Your task to perform on an android device: toggle wifi Image 0: 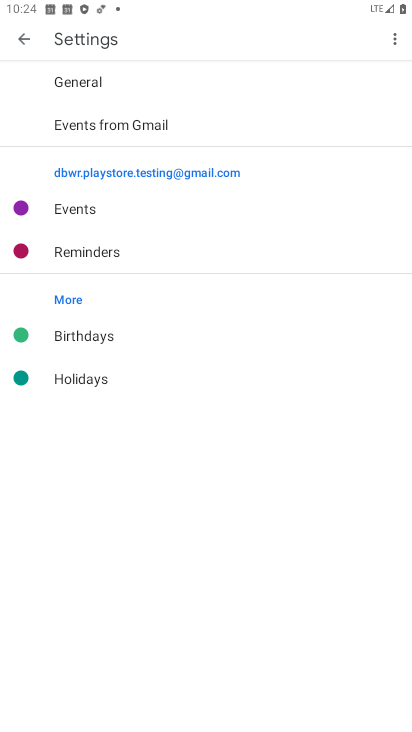
Step 0: drag from (309, 617) to (242, 142)
Your task to perform on an android device: toggle wifi Image 1: 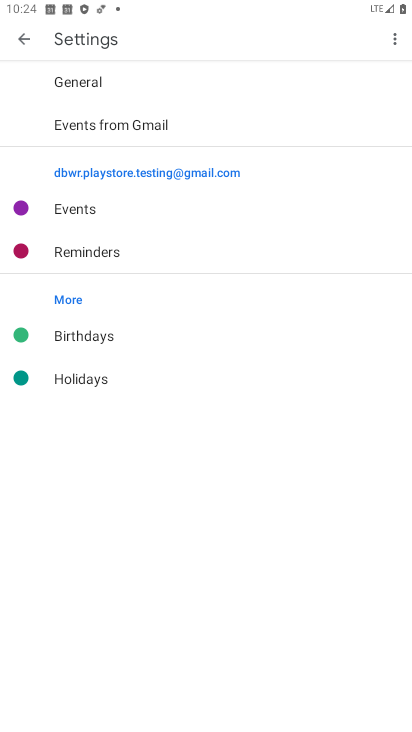
Step 1: drag from (211, 676) to (288, 266)
Your task to perform on an android device: toggle wifi Image 2: 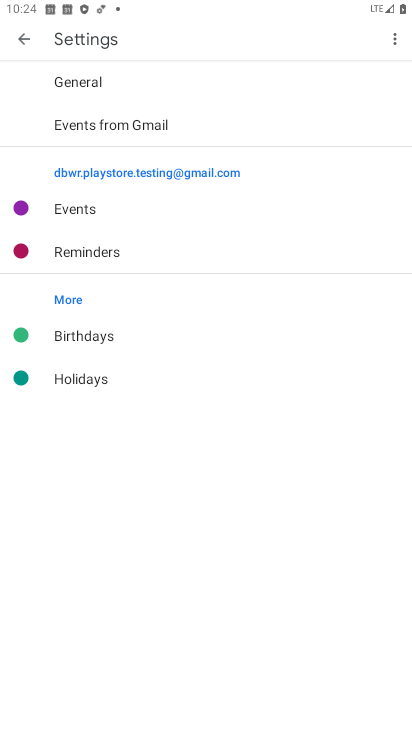
Step 2: drag from (217, 542) to (232, 420)
Your task to perform on an android device: toggle wifi Image 3: 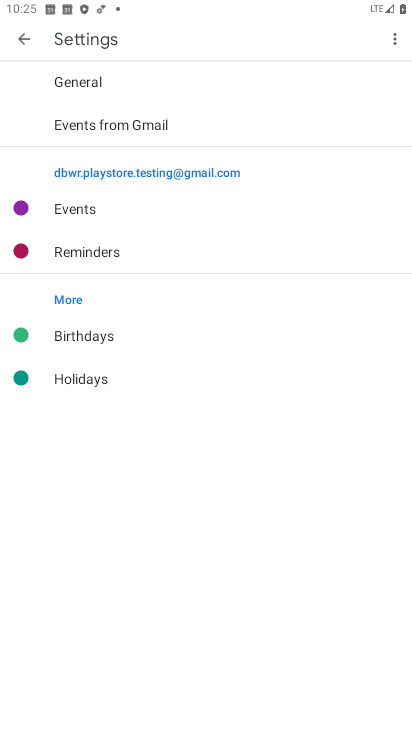
Step 3: drag from (285, 517) to (337, 277)
Your task to perform on an android device: toggle wifi Image 4: 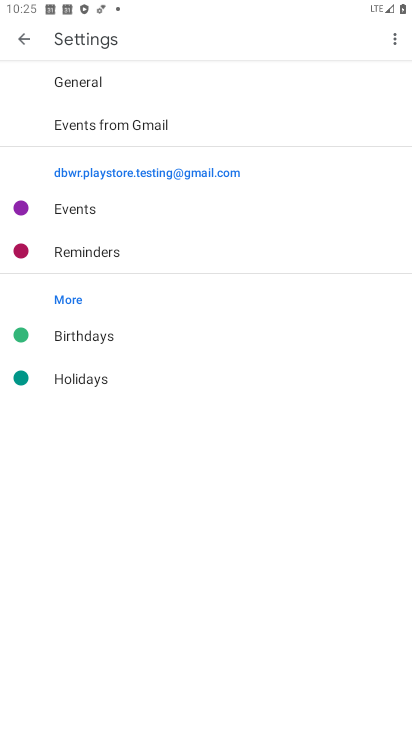
Step 4: drag from (179, 607) to (248, 311)
Your task to perform on an android device: toggle wifi Image 5: 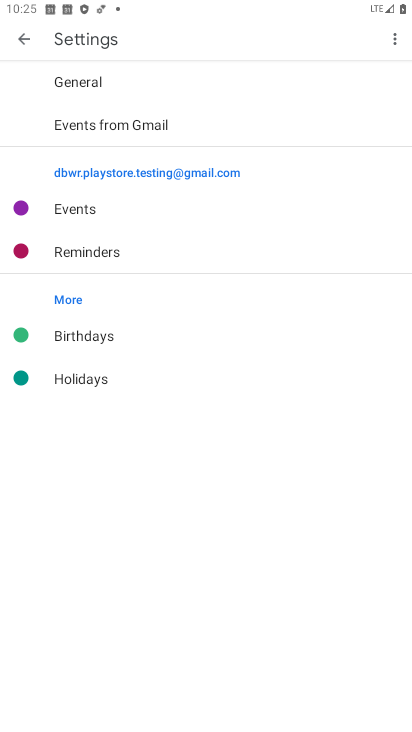
Step 5: drag from (161, 640) to (257, 309)
Your task to perform on an android device: toggle wifi Image 6: 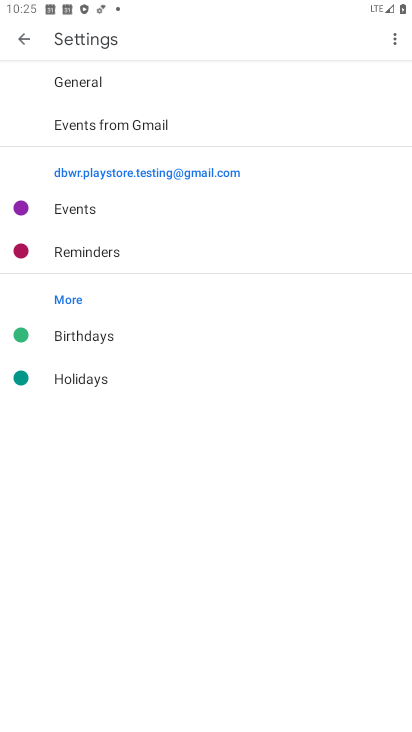
Step 6: drag from (222, 359) to (242, 200)
Your task to perform on an android device: toggle wifi Image 7: 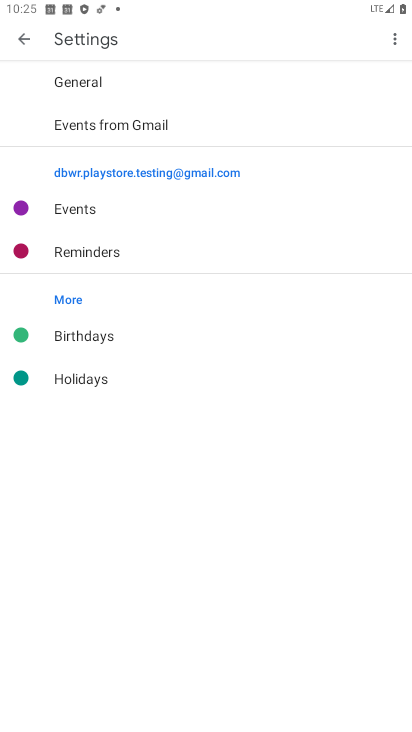
Step 7: click (36, 44)
Your task to perform on an android device: toggle wifi Image 8: 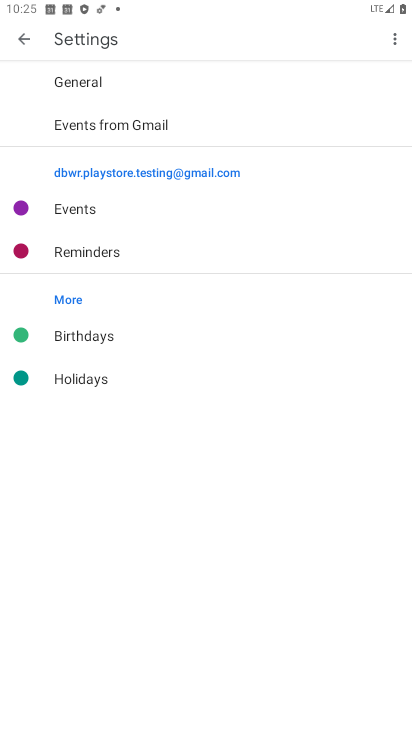
Step 8: drag from (172, 287) to (251, 555)
Your task to perform on an android device: toggle wifi Image 9: 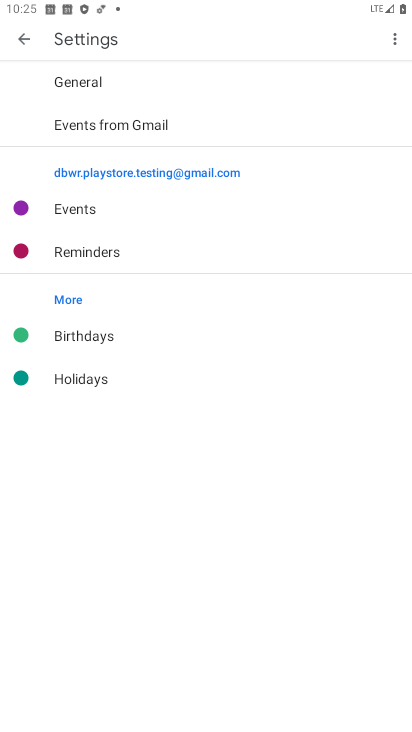
Step 9: press home button
Your task to perform on an android device: toggle wifi Image 10: 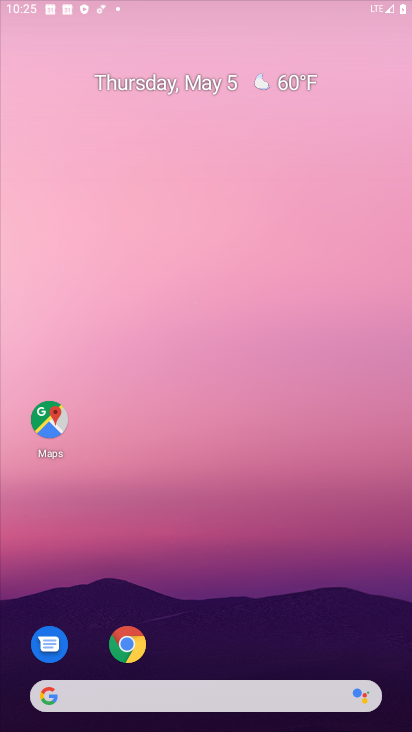
Step 10: drag from (222, 645) to (279, 154)
Your task to perform on an android device: toggle wifi Image 11: 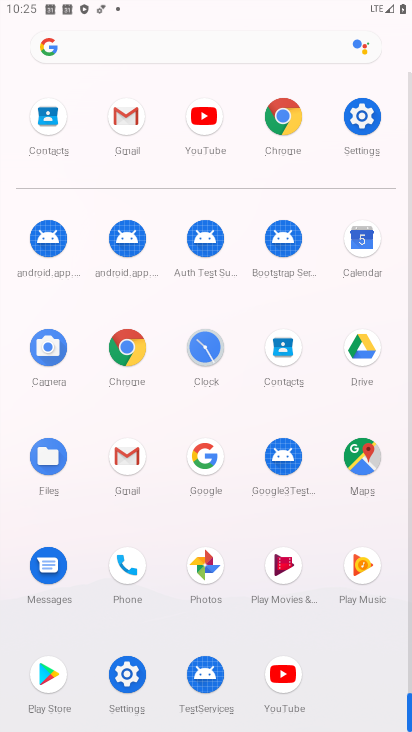
Step 11: click (360, 133)
Your task to perform on an android device: toggle wifi Image 12: 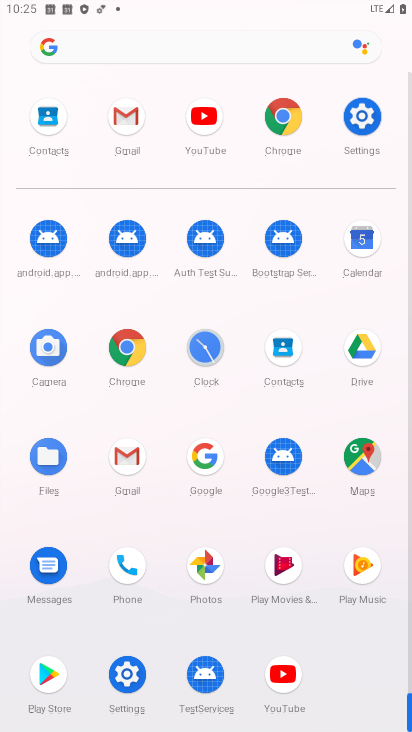
Step 12: click (360, 133)
Your task to perform on an android device: toggle wifi Image 13: 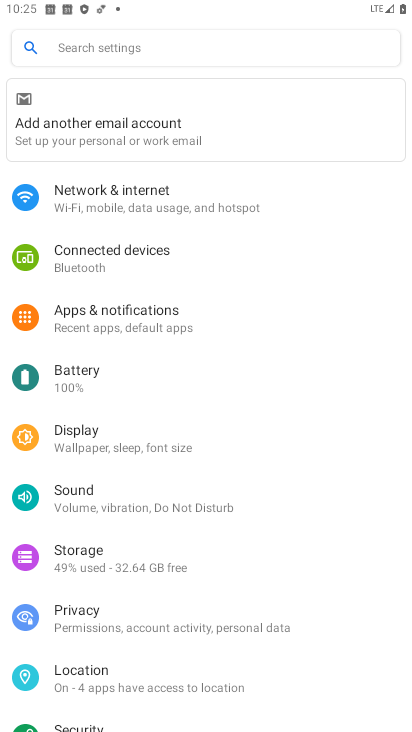
Step 13: click (126, 203)
Your task to perform on an android device: toggle wifi Image 14: 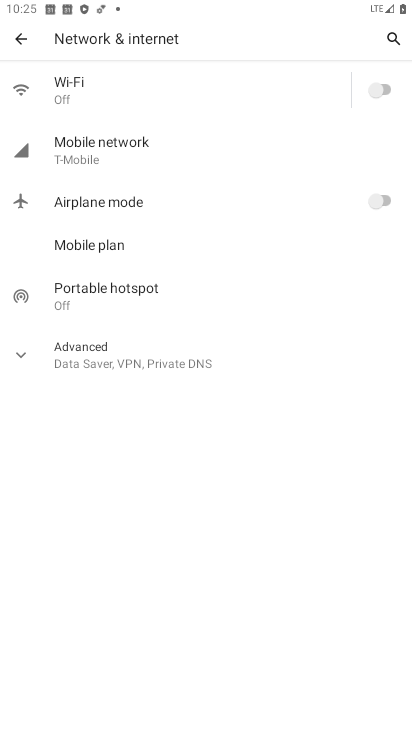
Step 14: click (146, 86)
Your task to perform on an android device: toggle wifi Image 15: 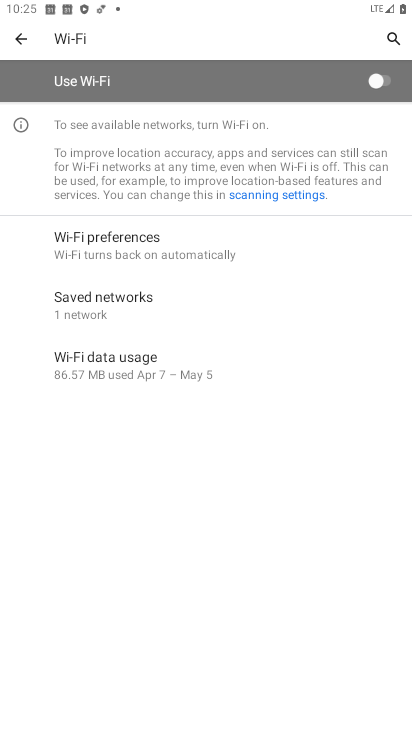
Step 15: click (311, 71)
Your task to perform on an android device: toggle wifi Image 16: 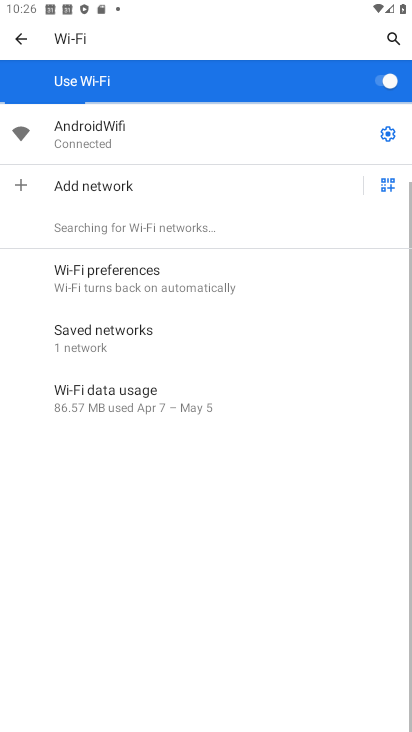
Step 16: task complete